Your task to perform on an android device: change the clock style Image 0: 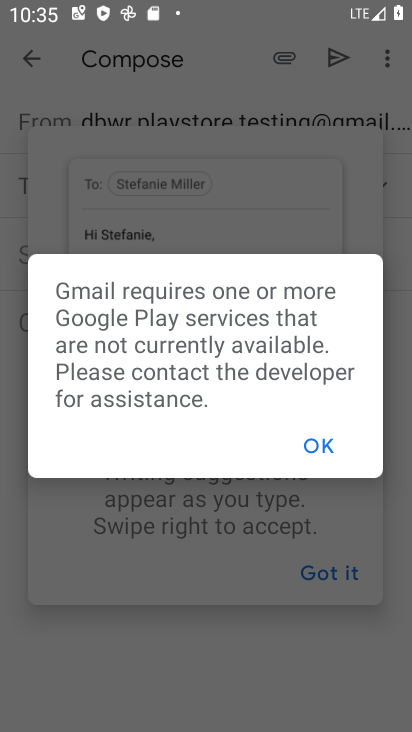
Step 0: press home button
Your task to perform on an android device: change the clock style Image 1: 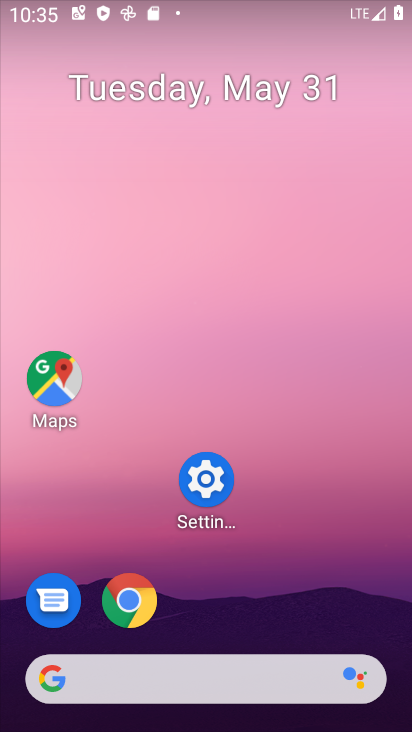
Step 1: drag from (203, 696) to (211, 339)
Your task to perform on an android device: change the clock style Image 2: 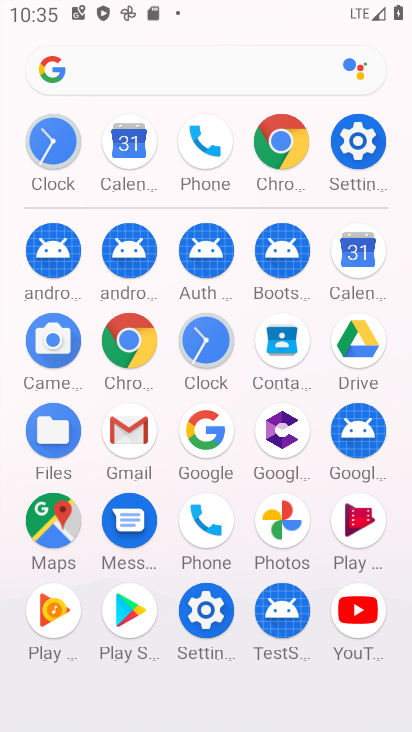
Step 2: click (210, 354)
Your task to perform on an android device: change the clock style Image 3: 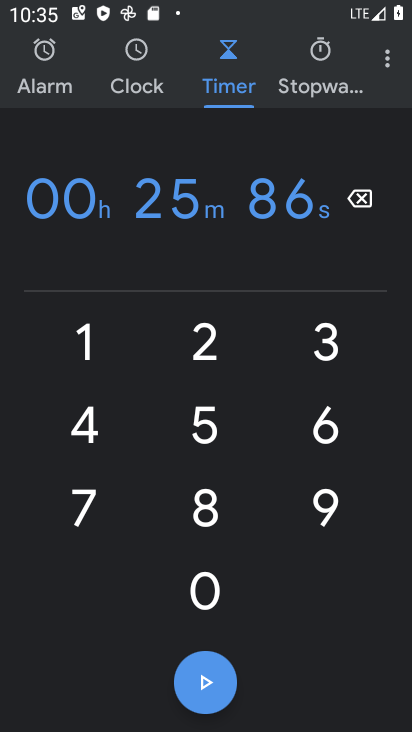
Step 3: click (386, 57)
Your task to perform on an android device: change the clock style Image 4: 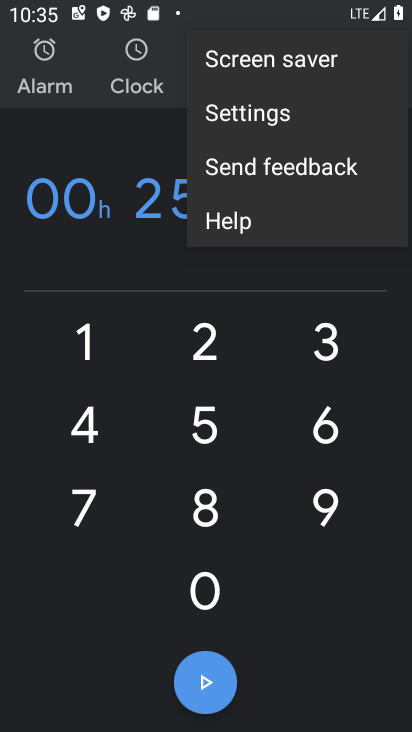
Step 4: click (233, 113)
Your task to perform on an android device: change the clock style Image 5: 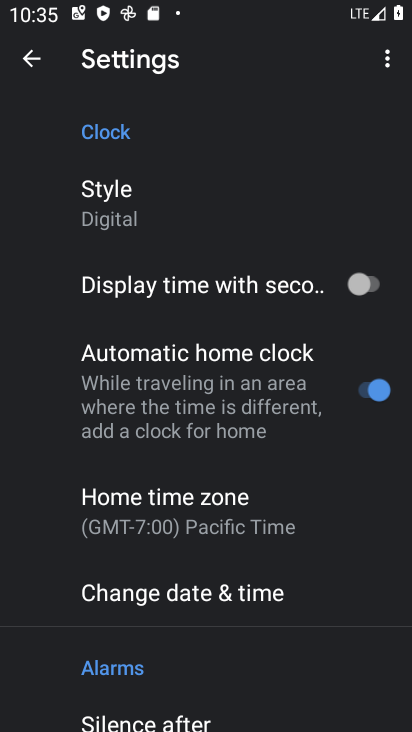
Step 5: click (138, 189)
Your task to perform on an android device: change the clock style Image 6: 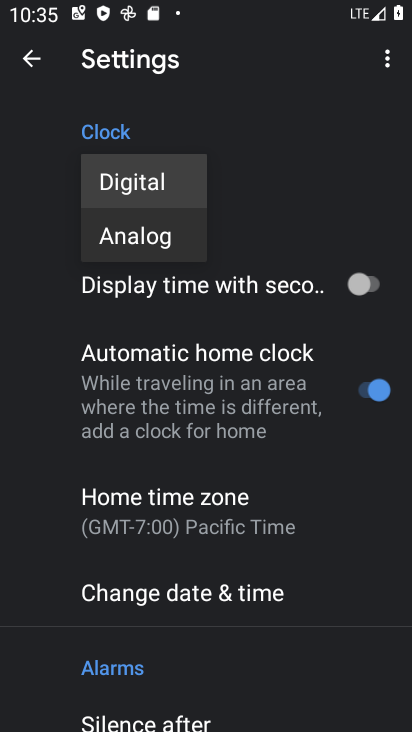
Step 6: click (138, 243)
Your task to perform on an android device: change the clock style Image 7: 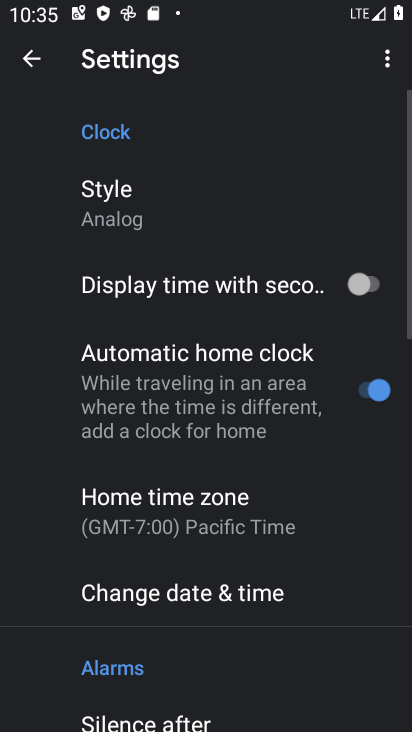
Step 7: task complete